Your task to perform on an android device: turn off notifications settings in the gmail app Image 0: 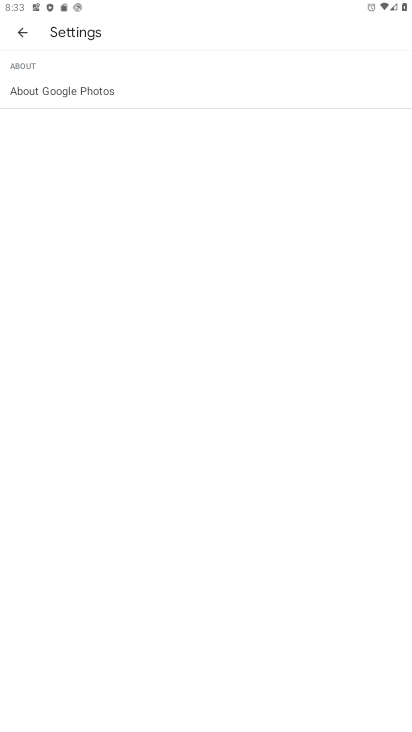
Step 0: press home button
Your task to perform on an android device: turn off notifications settings in the gmail app Image 1: 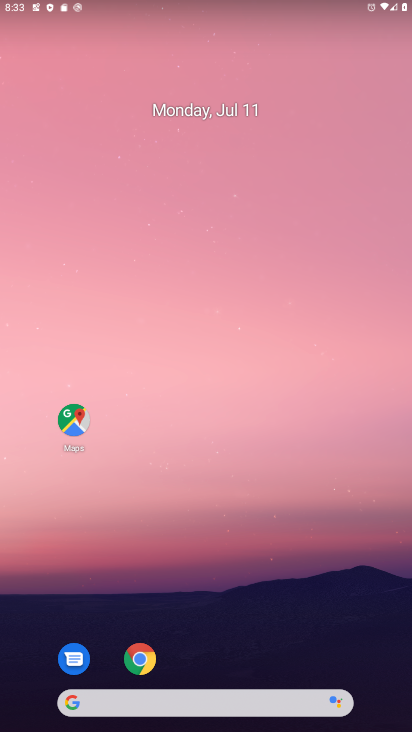
Step 1: drag from (243, 590) to (210, 121)
Your task to perform on an android device: turn off notifications settings in the gmail app Image 2: 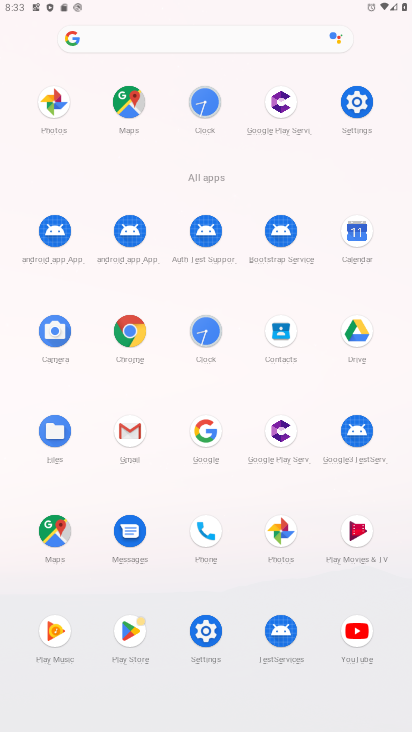
Step 2: click (127, 433)
Your task to perform on an android device: turn off notifications settings in the gmail app Image 3: 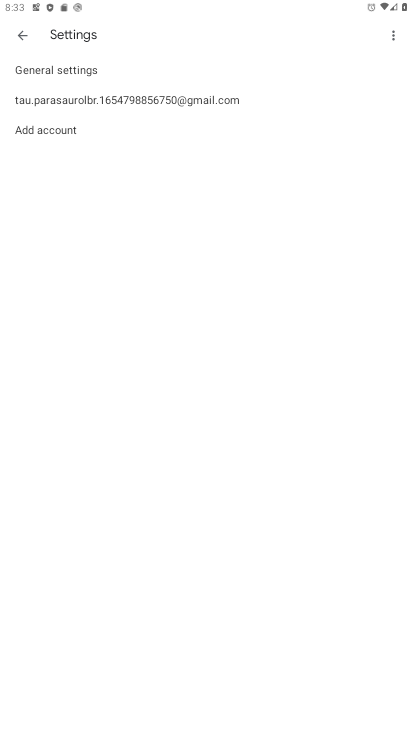
Step 3: click (55, 73)
Your task to perform on an android device: turn off notifications settings in the gmail app Image 4: 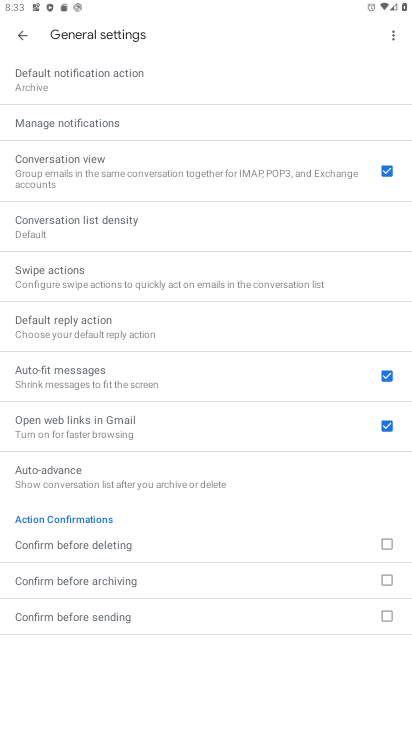
Step 4: click (73, 125)
Your task to perform on an android device: turn off notifications settings in the gmail app Image 5: 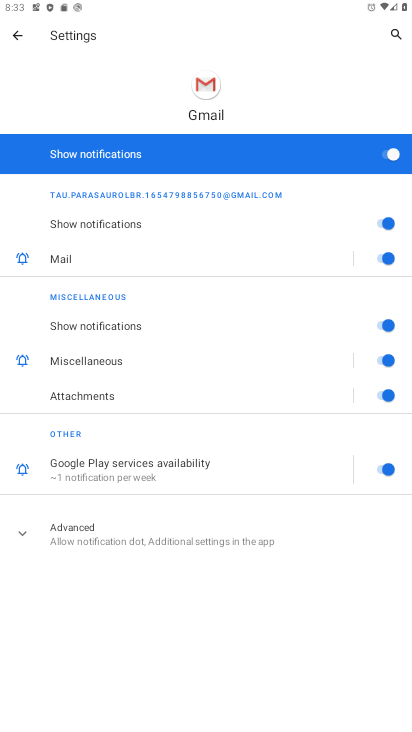
Step 5: click (395, 157)
Your task to perform on an android device: turn off notifications settings in the gmail app Image 6: 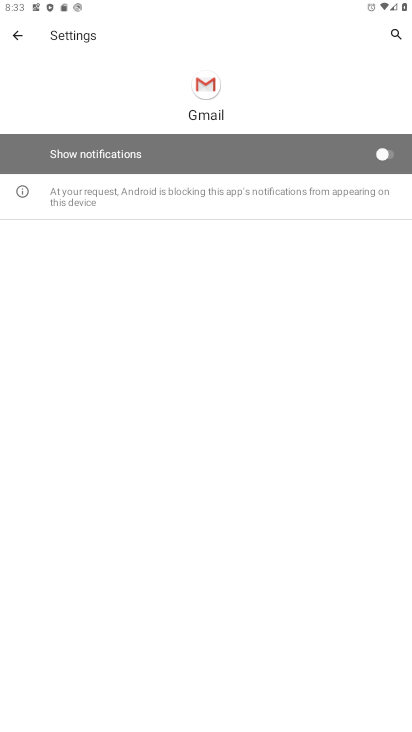
Step 6: task complete